Your task to perform on an android device: toggle notifications settings in the gmail app Image 0: 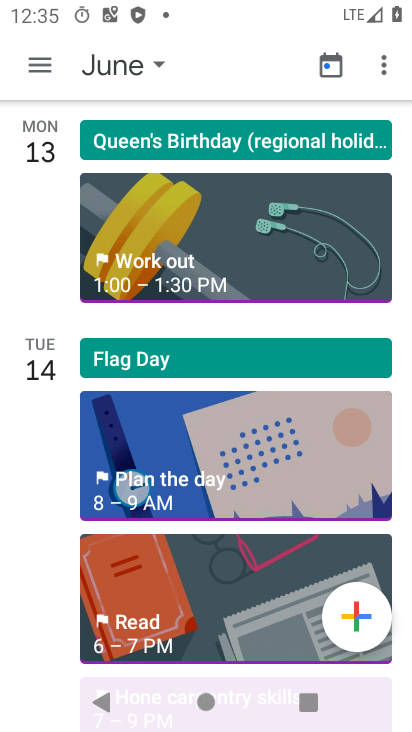
Step 0: press home button
Your task to perform on an android device: toggle notifications settings in the gmail app Image 1: 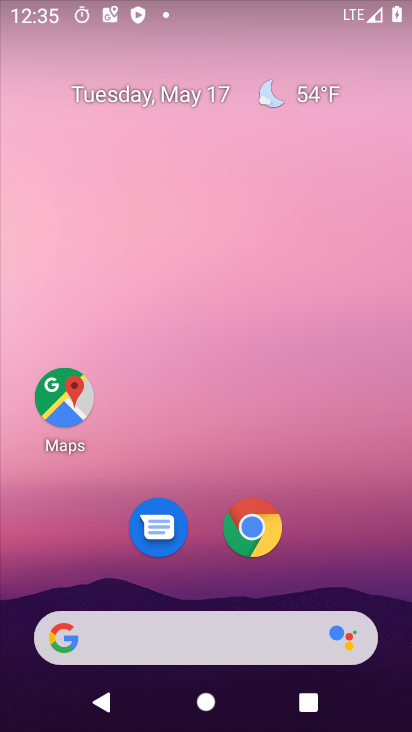
Step 1: drag from (217, 653) to (286, 275)
Your task to perform on an android device: toggle notifications settings in the gmail app Image 2: 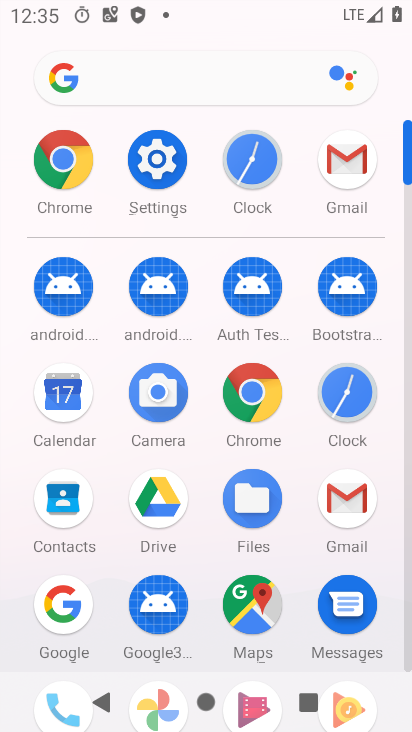
Step 2: click (356, 154)
Your task to perform on an android device: toggle notifications settings in the gmail app Image 3: 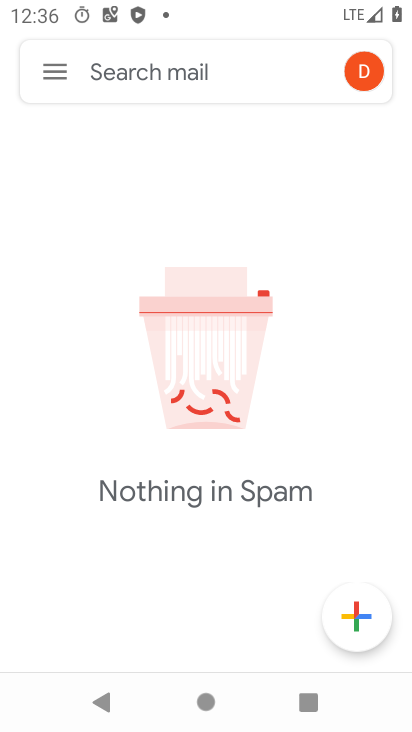
Step 3: click (53, 85)
Your task to perform on an android device: toggle notifications settings in the gmail app Image 4: 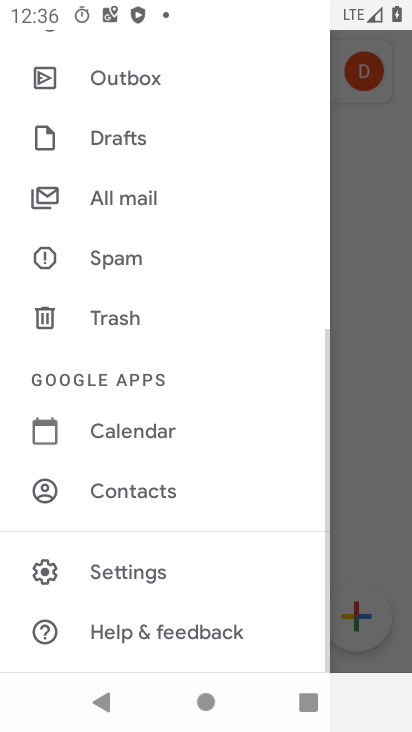
Step 4: click (83, 563)
Your task to perform on an android device: toggle notifications settings in the gmail app Image 5: 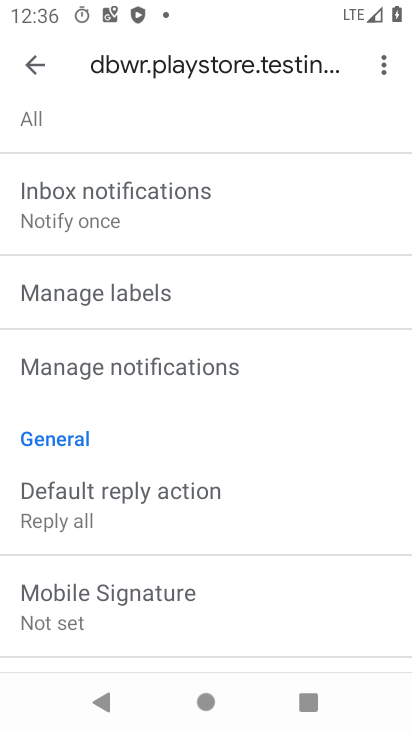
Step 5: drag from (165, 291) to (119, 482)
Your task to perform on an android device: toggle notifications settings in the gmail app Image 6: 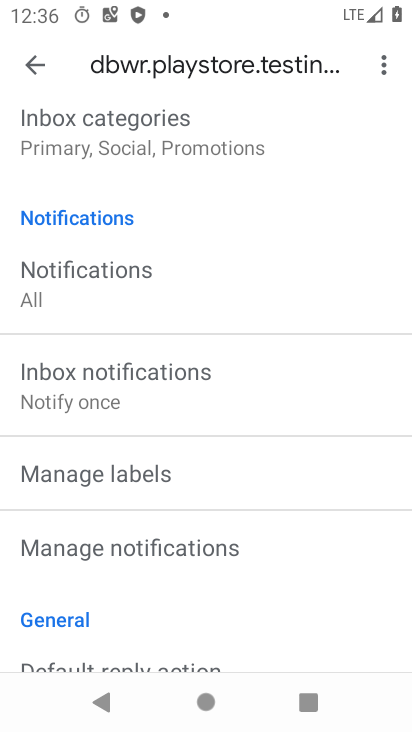
Step 6: click (135, 277)
Your task to perform on an android device: toggle notifications settings in the gmail app Image 7: 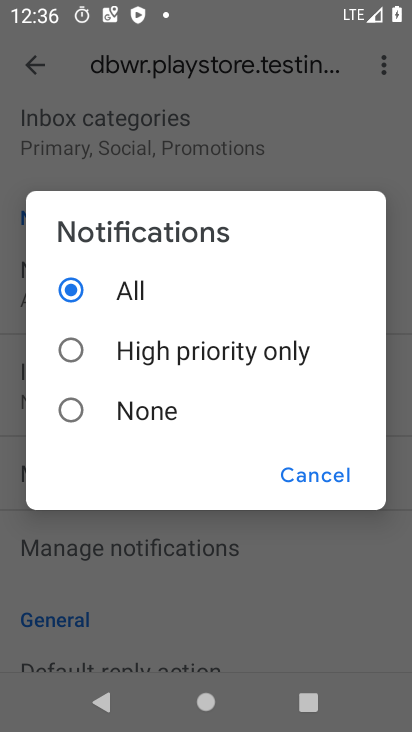
Step 7: task complete